Your task to perform on an android device: Go to battery settings Image 0: 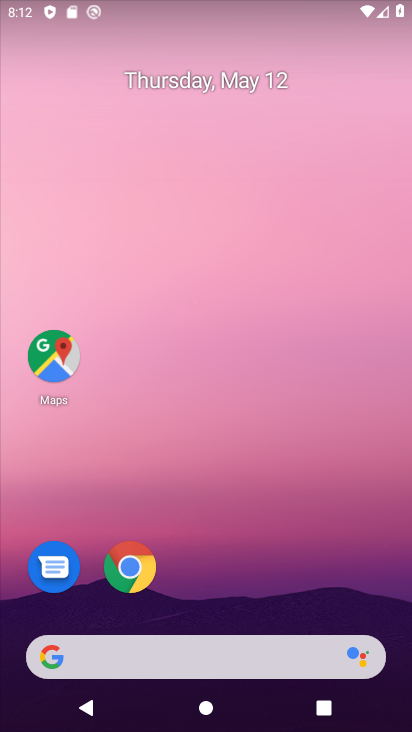
Step 0: drag from (178, 633) to (264, 196)
Your task to perform on an android device: Go to battery settings Image 1: 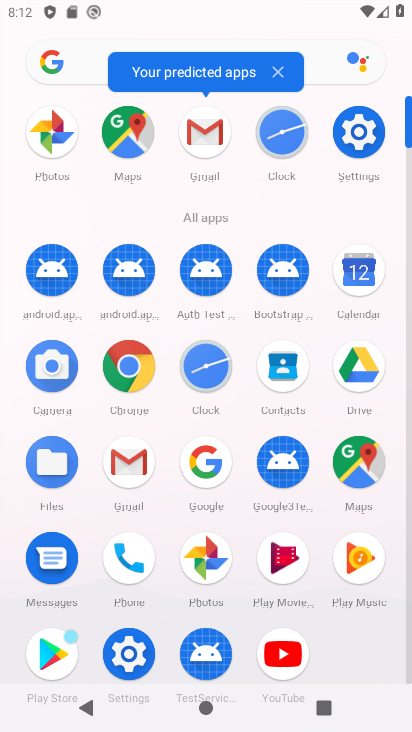
Step 1: drag from (145, 611) to (182, 436)
Your task to perform on an android device: Go to battery settings Image 2: 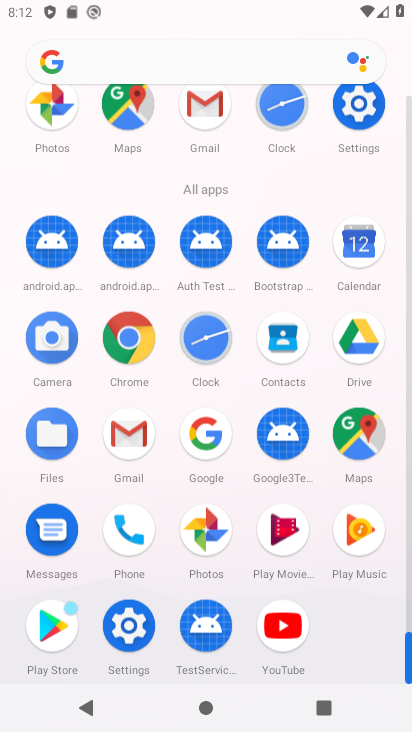
Step 2: click (126, 620)
Your task to perform on an android device: Go to battery settings Image 3: 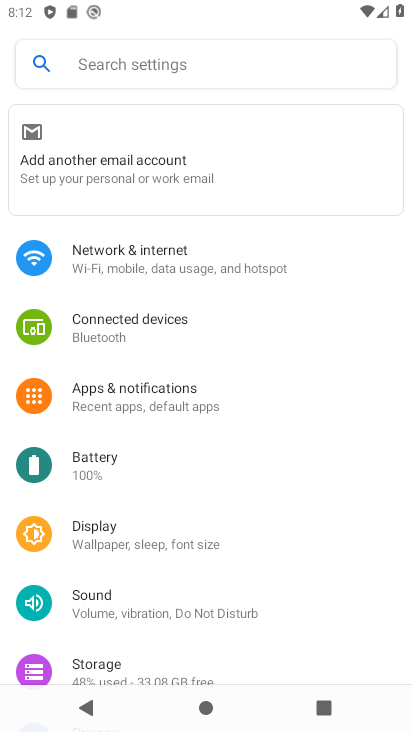
Step 3: click (130, 445)
Your task to perform on an android device: Go to battery settings Image 4: 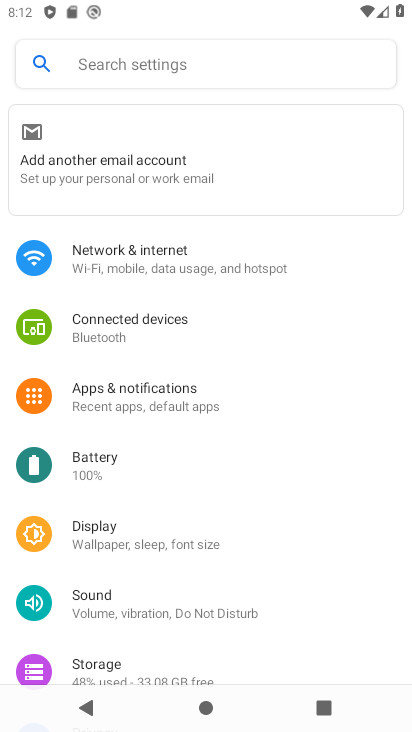
Step 4: click (139, 470)
Your task to perform on an android device: Go to battery settings Image 5: 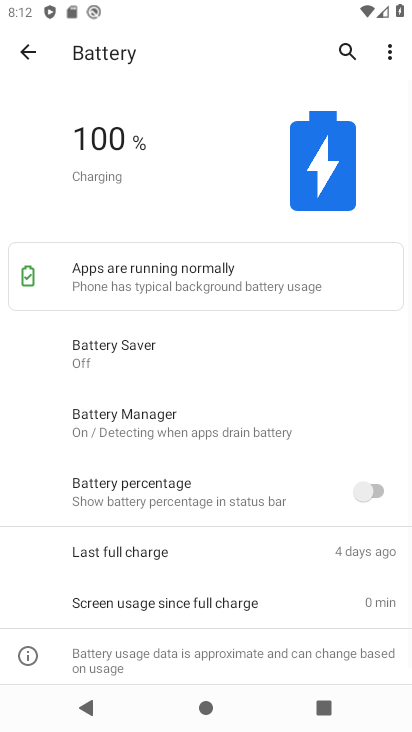
Step 5: task complete